Your task to perform on an android device: When is my next meeting? Image 0: 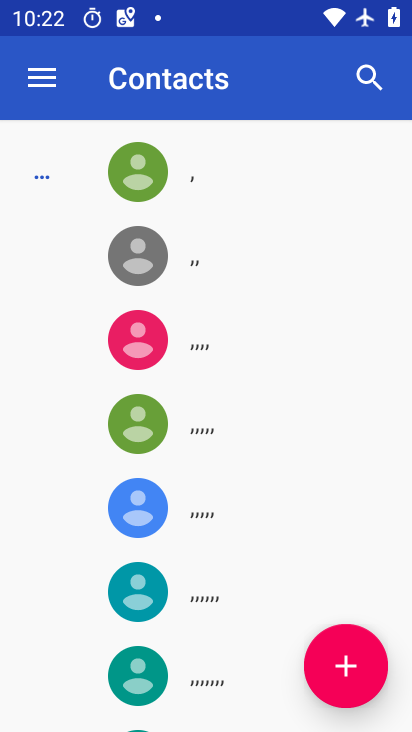
Step 0: press home button
Your task to perform on an android device: When is my next meeting? Image 1: 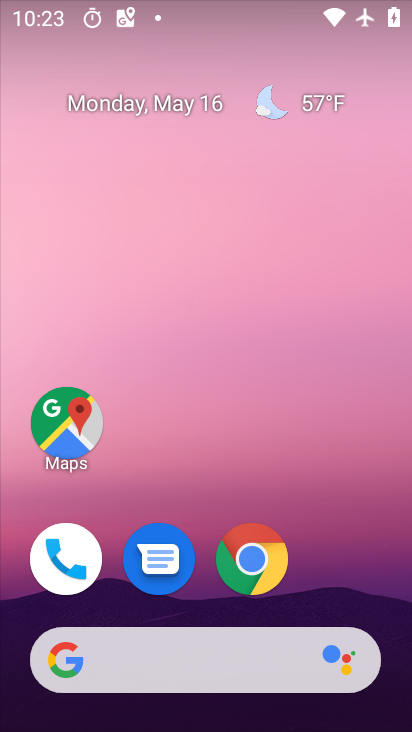
Step 1: drag from (346, 449) to (317, 134)
Your task to perform on an android device: When is my next meeting? Image 2: 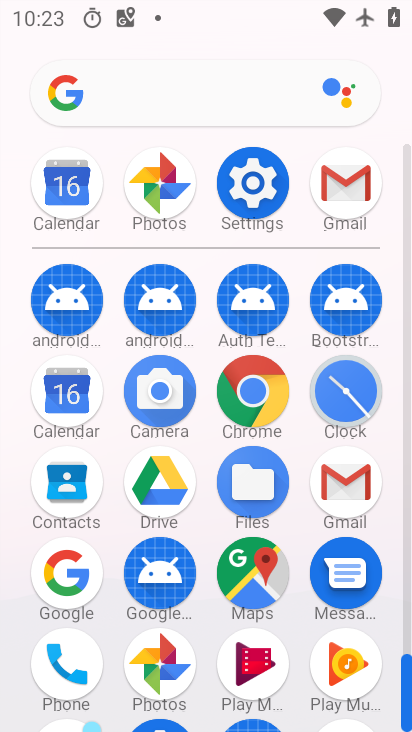
Step 2: click (71, 405)
Your task to perform on an android device: When is my next meeting? Image 3: 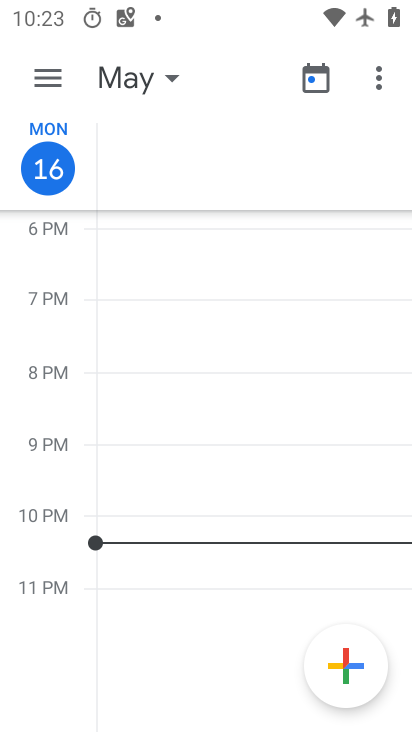
Step 3: click (65, 78)
Your task to perform on an android device: When is my next meeting? Image 4: 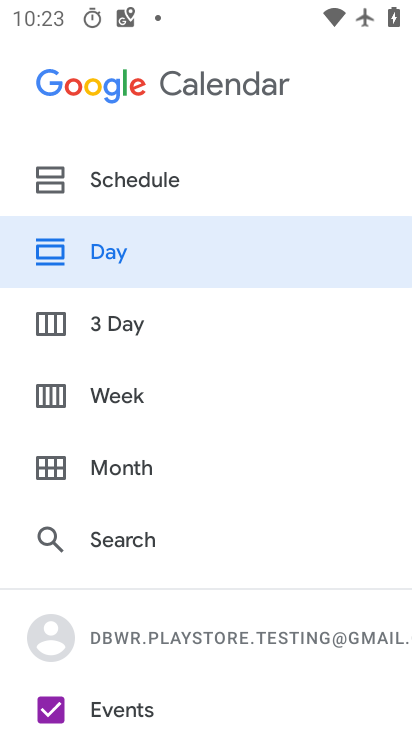
Step 4: click (94, 325)
Your task to perform on an android device: When is my next meeting? Image 5: 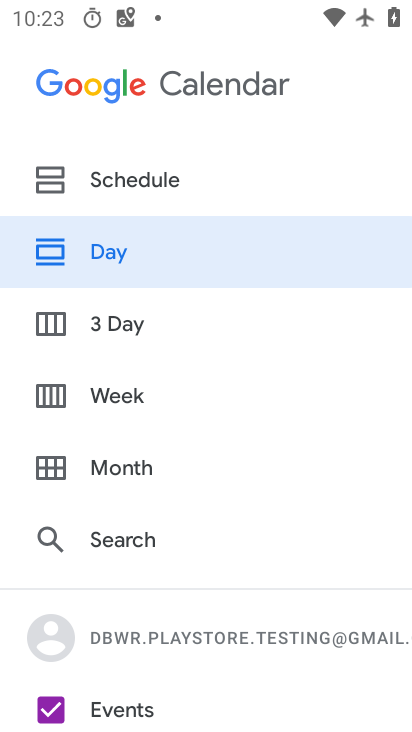
Step 5: click (102, 331)
Your task to perform on an android device: When is my next meeting? Image 6: 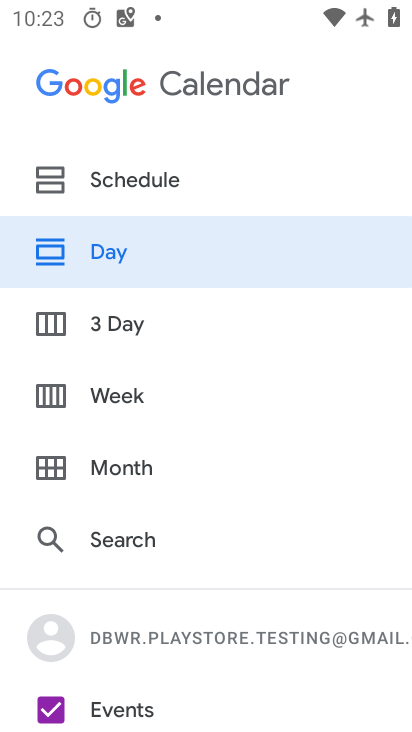
Step 6: click (110, 324)
Your task to perform on an android device: When is my next meeting? Image 7: 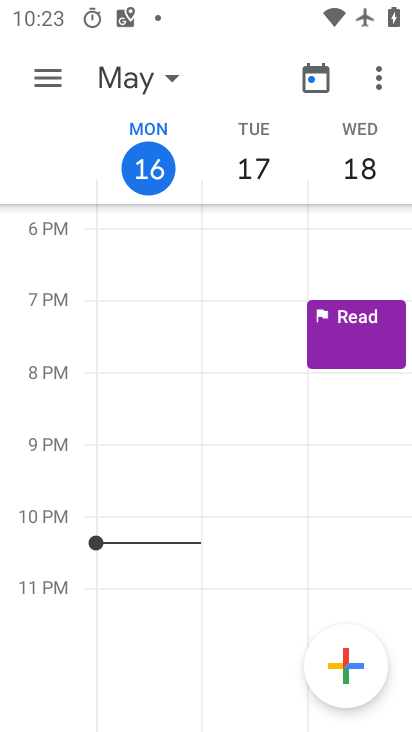
Step 7: task complete